Your task to perform on an android device: What's on my calendar tomorrow? Image 0: 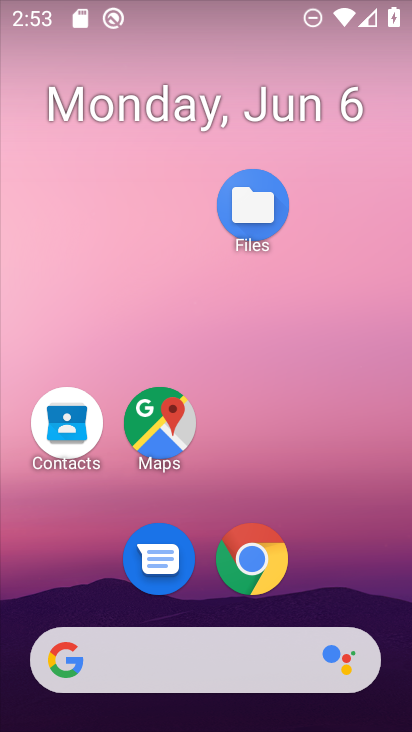
Step 0: drag from (187, 598) to (212, 205)
Your task to perform on an android device: What's on my calendar tomorrow? Image 1: 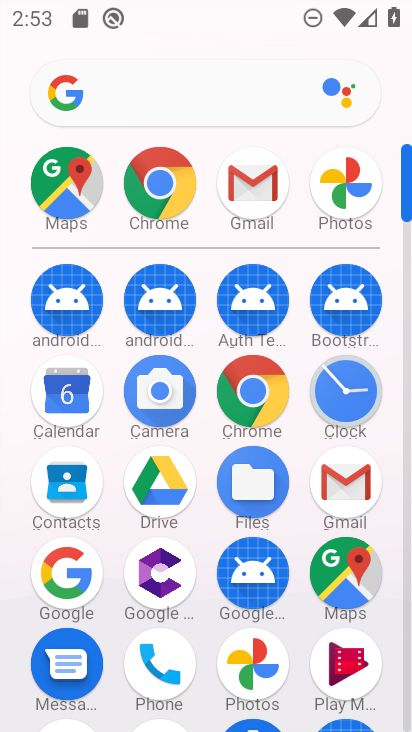
Step 1: click (69, 408)
Your task to perform on an android device: What's on my calendar tomorrow? Image 2: 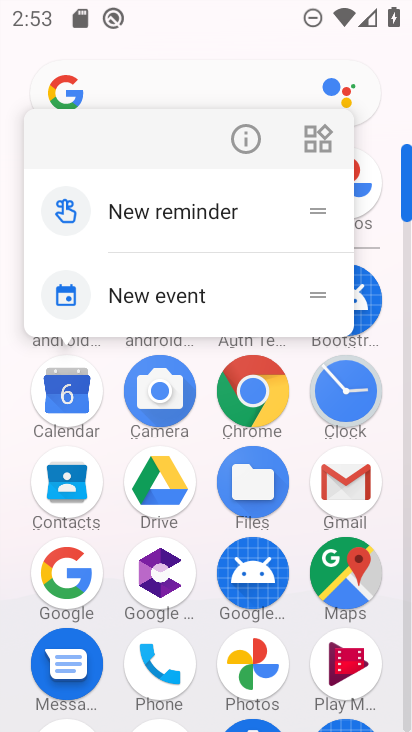
Step 2: click (69, 408)
Your task to perform on an android device: What's on my calendar tomorrow? Image 3: 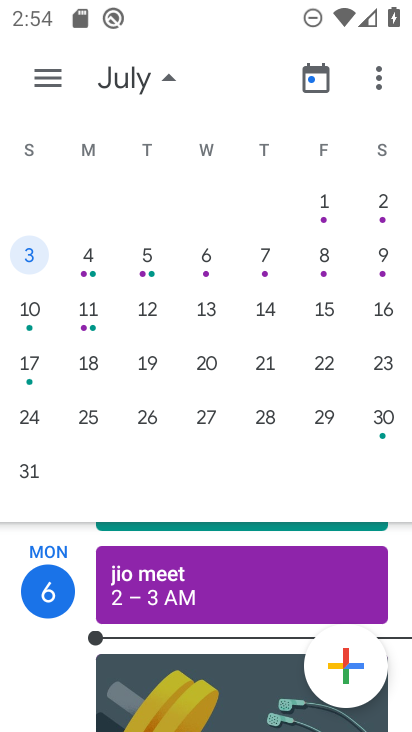
Step 3: drag from (52, 388) to (410, 421)
Your task to perform on an android device: What's on my calendar tomorrow? Image 4: 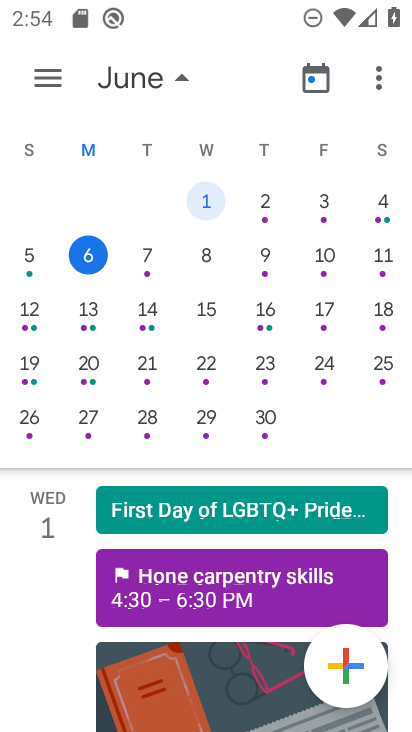
Step 4: click (142, 264)
Your task to perform on an android device: What's on my calendar tomorrow? Image 5: 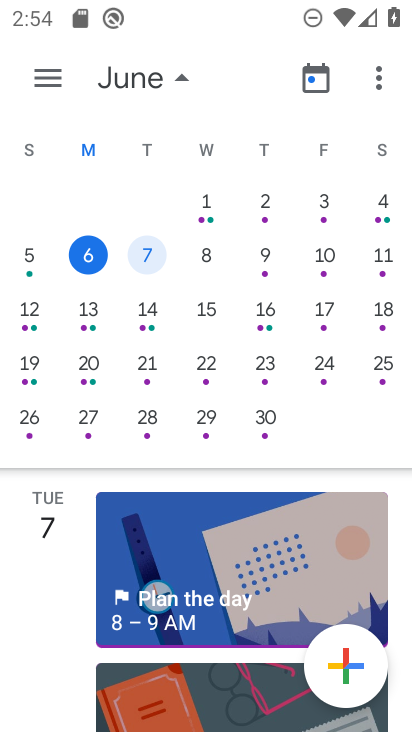
Step 5: task complete